Your task to perform on an android device: Show me popular games on the Play Store Image 0: 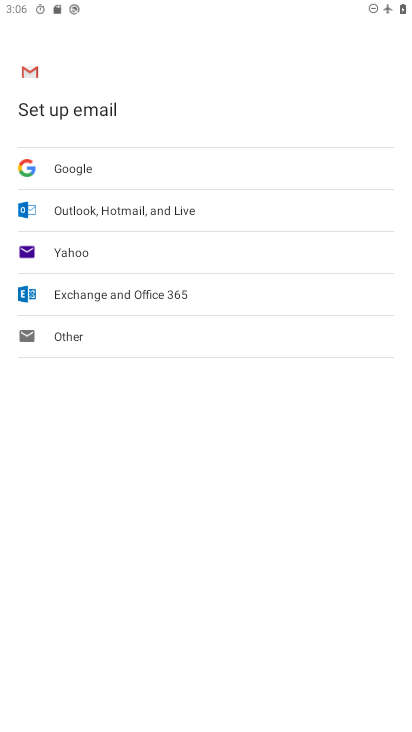
Step 0: press home button
Your task to perform on an android device: Show me popular games on the Play Store Image 1: 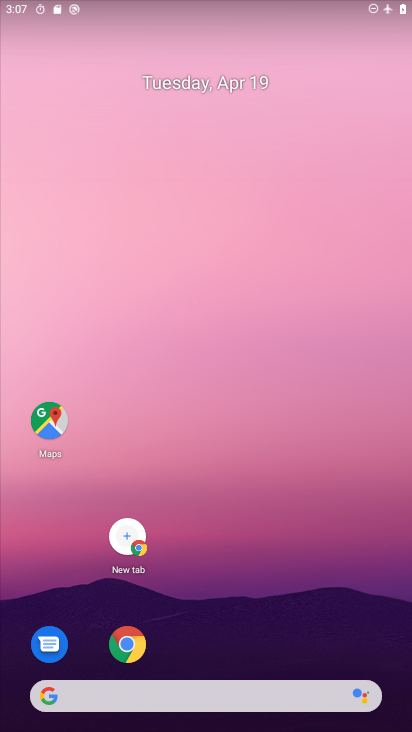
Step 1: drag from (182, 474) to (147, 188)
Your task to perform on an android device: Show me popular games on the Play Store Image 2: 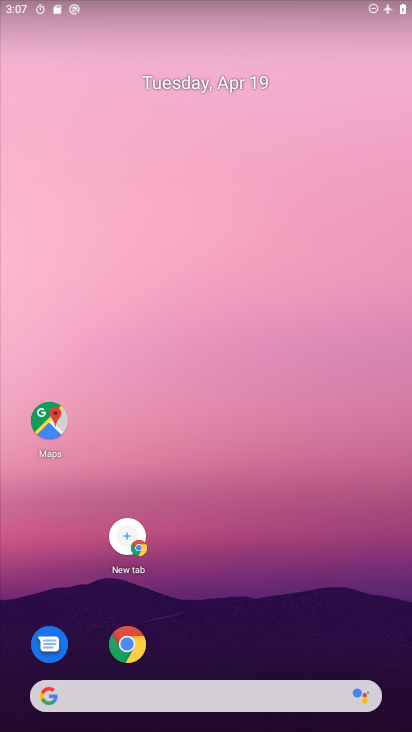
Step 2: drag from (186, 510) to (145, 60)
Your task to perform on an android device: Show me popular games on the Play Store Image 3: 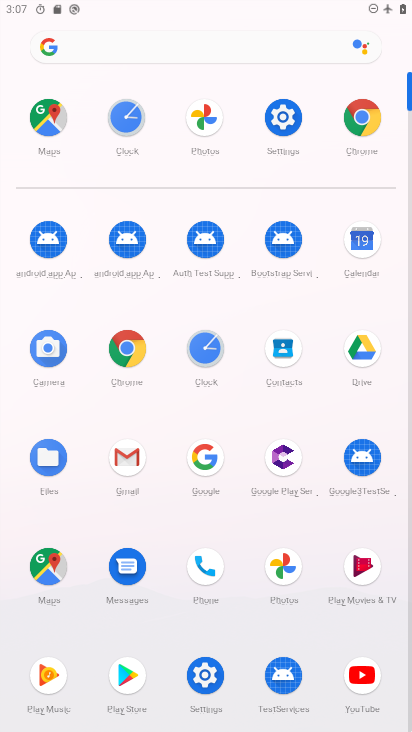
Step 3: click (122, 685)
Your task to perform on an android device: Show me popular games on the Play Store Image 4: 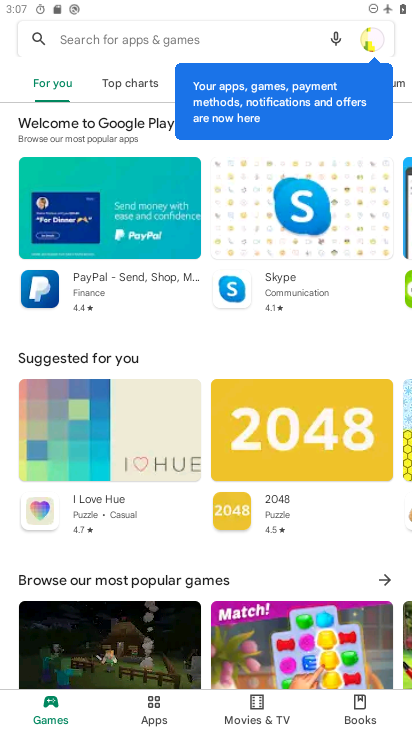
Step 4: click (114, 86)
Your task to perform on an android device: Show me popular games on the Play Store Image 5: 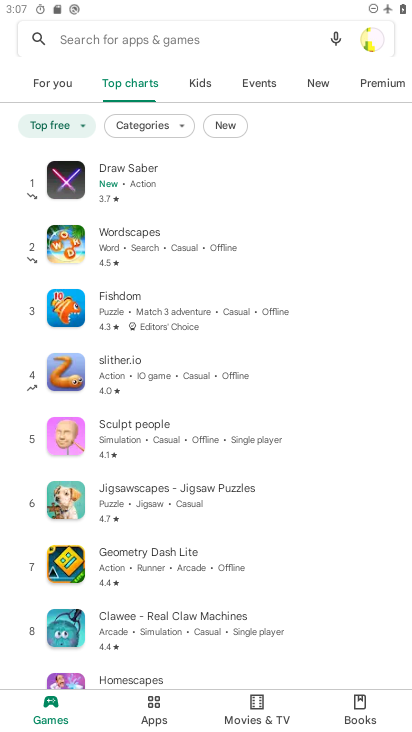
Step 5: click (75, 124)
Your task to perform on an android device: Show me popular games on the Play Store Image 6: 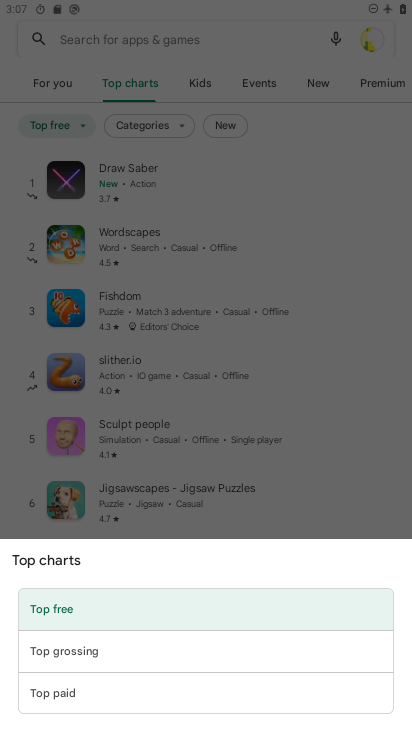
Step 6: click (82, 646)
Your task to perform on an android device: Show me popular games on the Play Store Image 7: 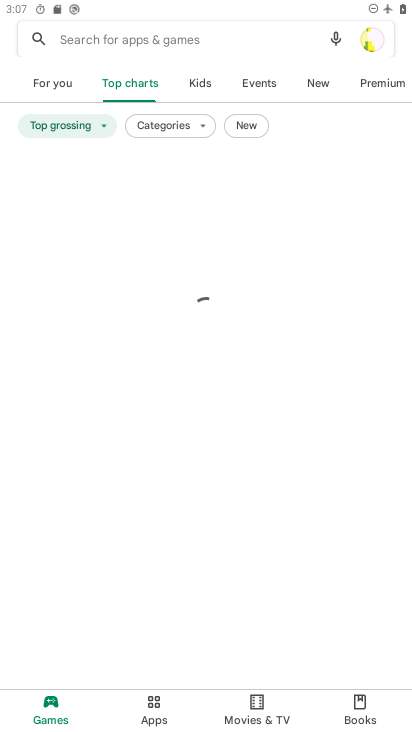
Step 7: click (105, 126)
Your task to perform on an android device: Show me popular games on the Play Store Image 8: 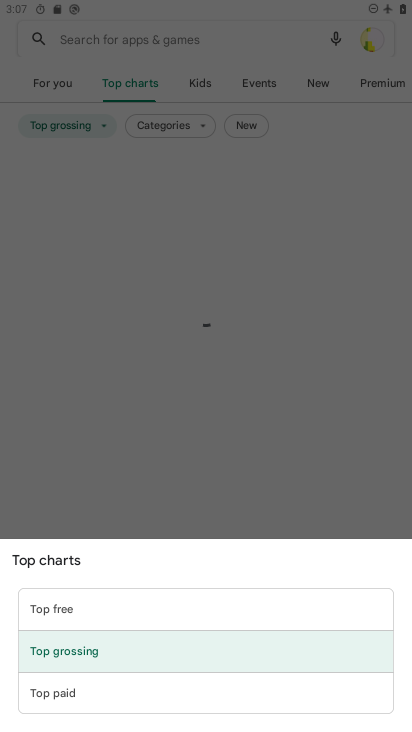
Step 8: click (50, 702)
Your task to perform on an android device: Show me popular games on the Play Store Image 9: 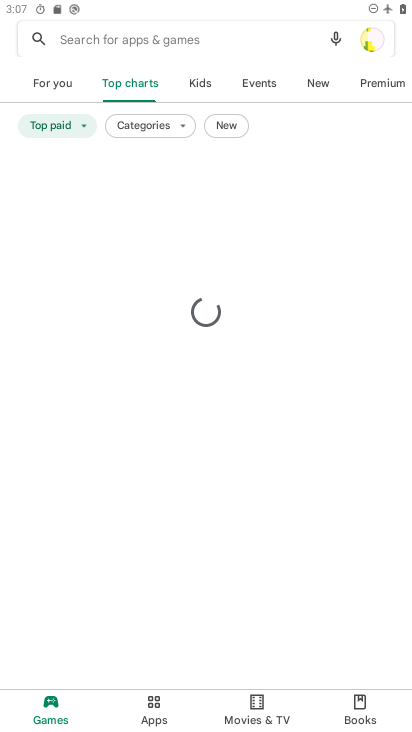
Step 9: task complete